Your task to perform on an android device: turn on the 24-hour format for clock Image 0: 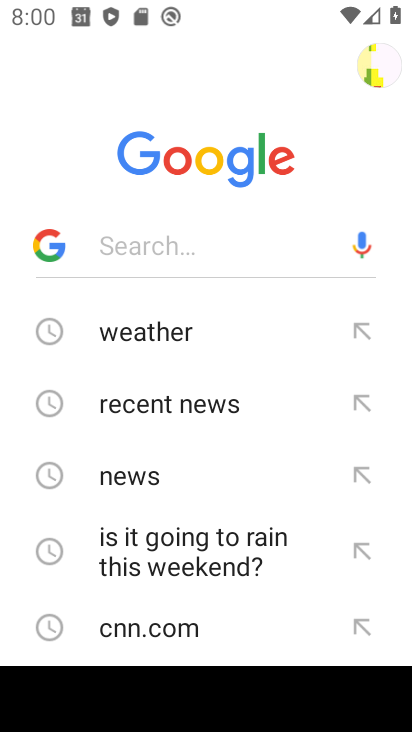
Step 0: press home button
Your task to perform on an android device: turn on the 24-hour format for clock Image 1: 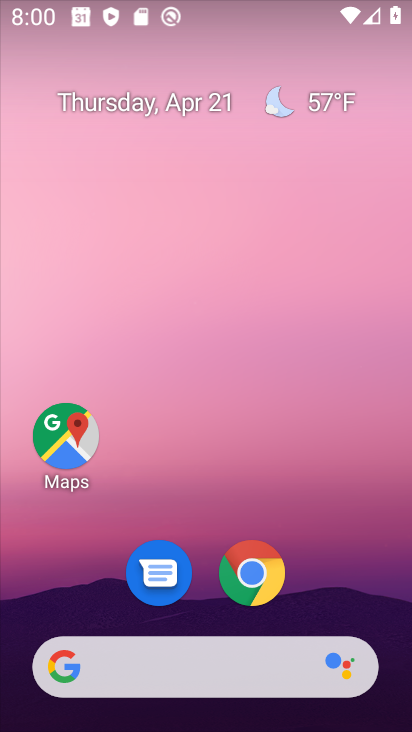
Step 1: drag from (215, 725) to (238, 101)
Your task to perform on an android device: turn on the 24-hour format for clock Image 2: 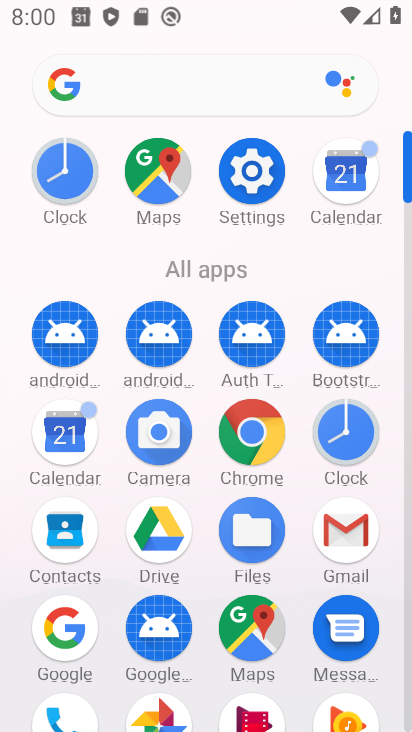
Step 2: click (339, 444)
Your task to perform on an android device: turn on the 24-hour format for clock Image 3: 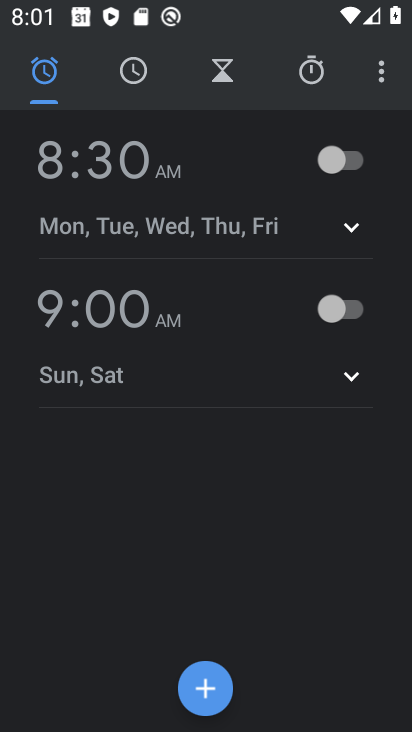
Step 3: click (383, 71)
Your task to perform on an android device: turn on the 24-hour format for clock Image 4: 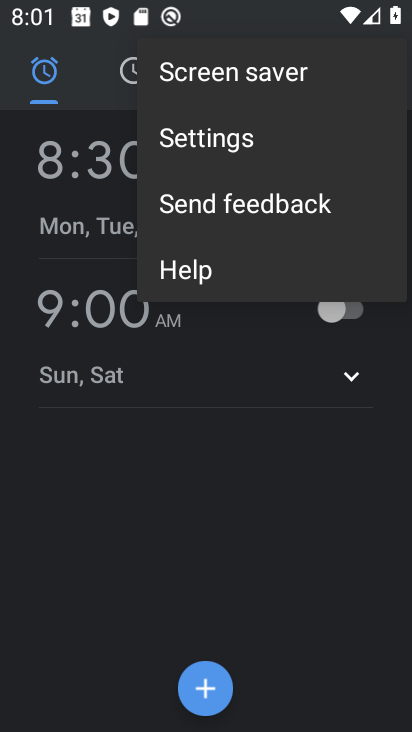
Step 4: click (220, 133)
Your task to perform on an android device: turn on the 24-hour format for clock Image 5: 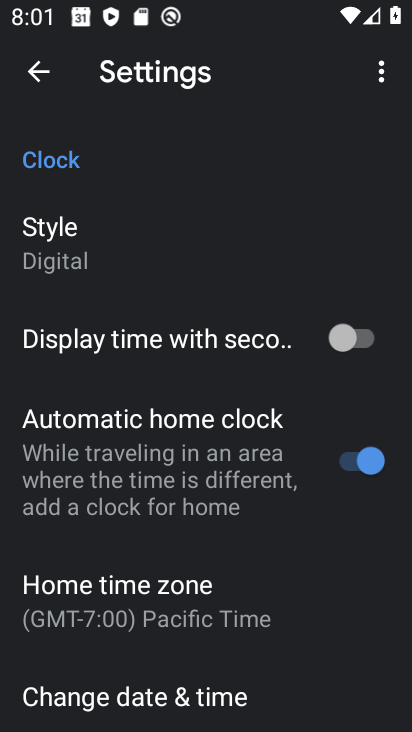
Step 5: drag from (130, 655) to (136, 327)
Your task to perform on an android device: turn on the 24-hour format for clock Image 6: 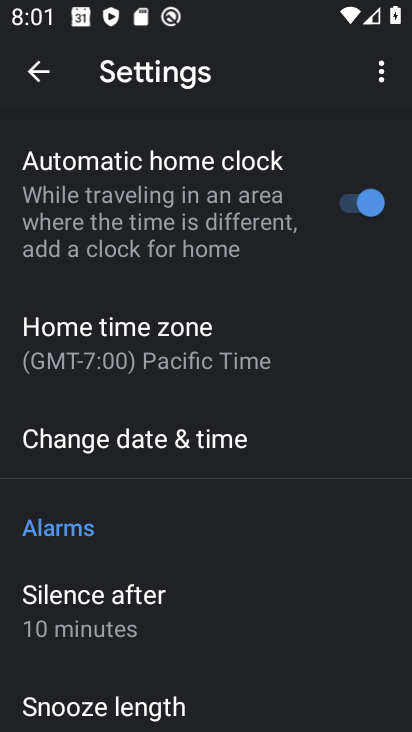
Step 6: click (162, 436)
Your task to perform on an android device: turn on the 24-hour format for clock Image 7: 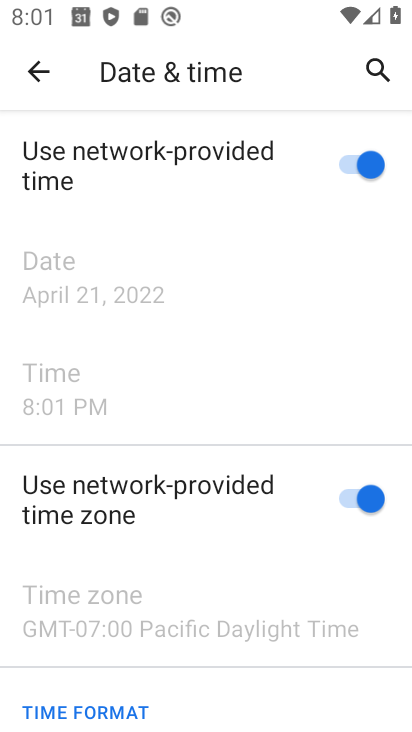
Step 7: drag from (145, 691) to (147, 305)
Your task to perform on an android device: turn on the 24-hour format for clock Image 8: 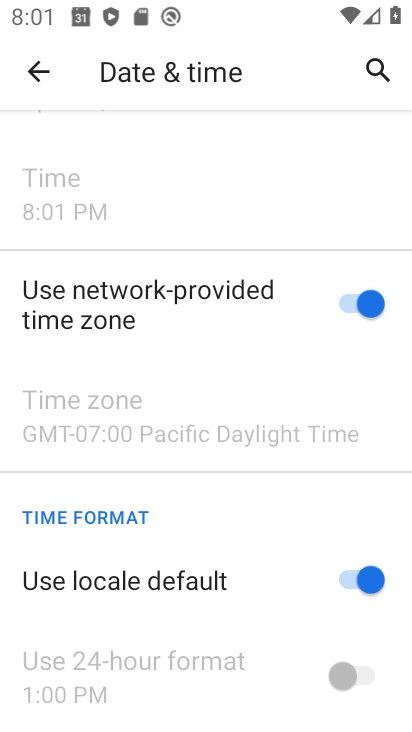
Step 8: click (346, 579)
Your task to perform on an android device: turn on the 24-hour format for clock Image 9: 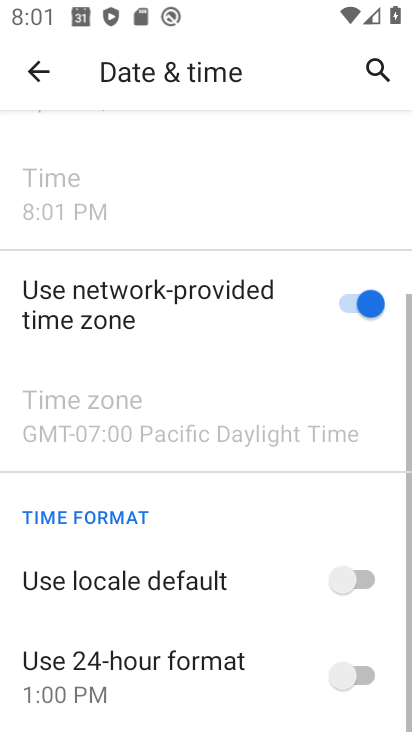
Step 9: click (363, 676)
Your task to perform on an android device: turn on the 24-hour format for clock Image 10: 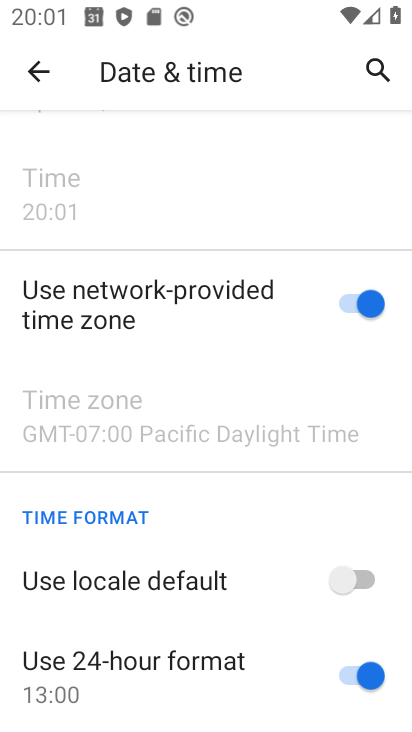
Step 10: task complete